Your task to perform on an android device: Play the last video I watched on Youtube Image 0: 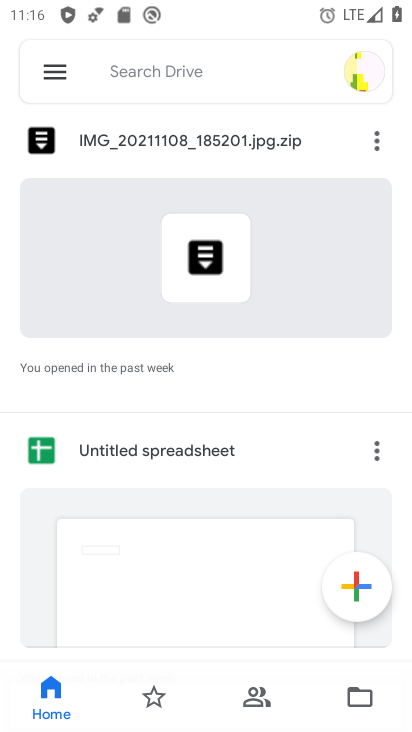
Step 0: press home button
Your task to perform on an android device: Play the last video I watched on Youtube Image 1: 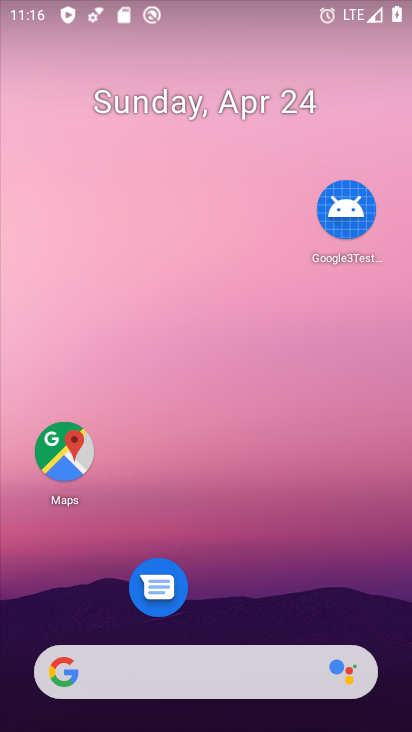
Step 1: drag from (357, 601) to (316, 49)
Your task to perform on an android device: Play the last video I watched on Youtube Image 2: 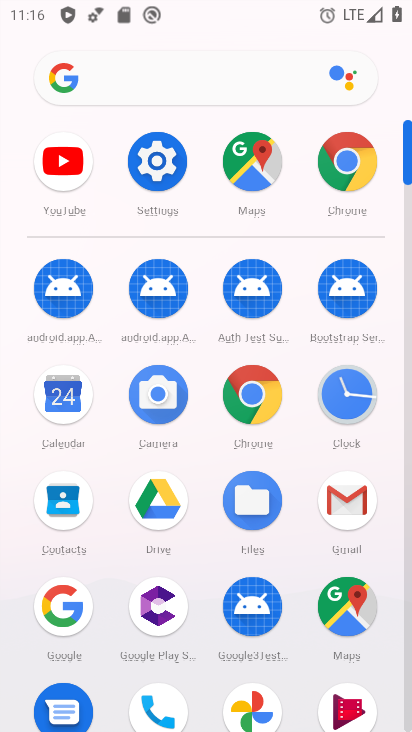
Step 2: click (59, 152)
Your task to perform on an android device: Play the last video I watched on Youtube Image 3: 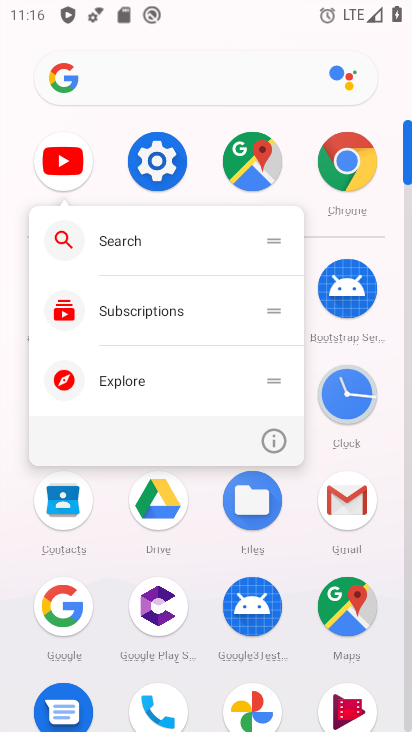
Step 3: click (71, 168)
Your task to perform on an android device: Play the last video I watched on Youtube Image 4: 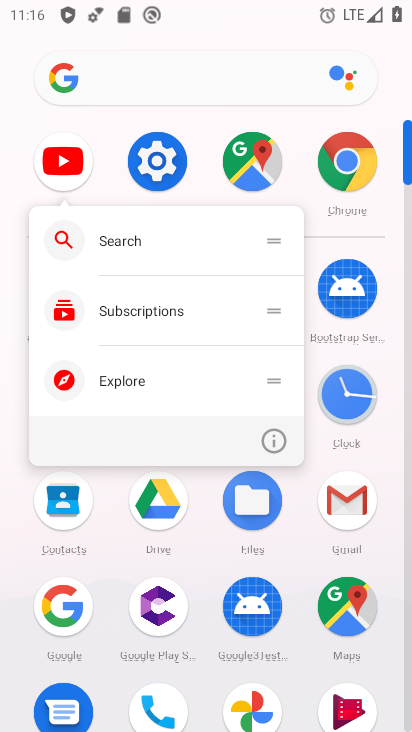
Step 4: click (73, 173)
Your task to perform on an android device: Play the last video I watched on Youtube Image 5: 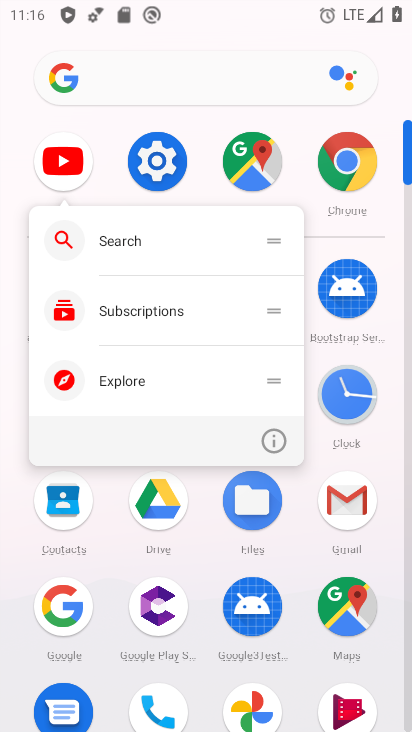
Step 5: drag from (168, 618) to (308, 143)
Your task to perform on an android device: Play the last video I watched on Youtube Image 6: 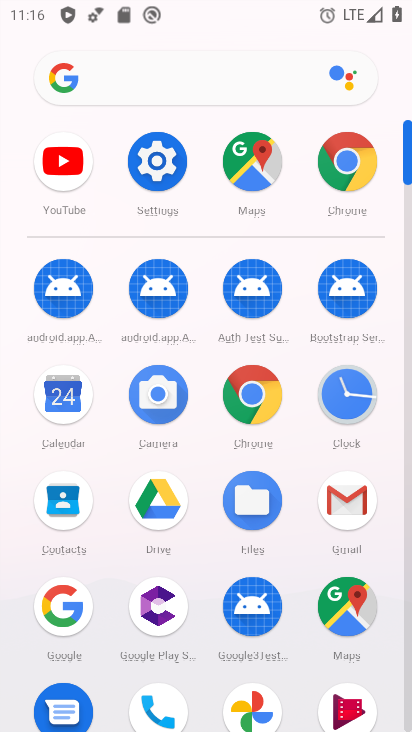
Step 6: drag from (186, 665) to (278, 223)
Your task to perform on an android device: Play the last video I watched on Youtube Image 7: 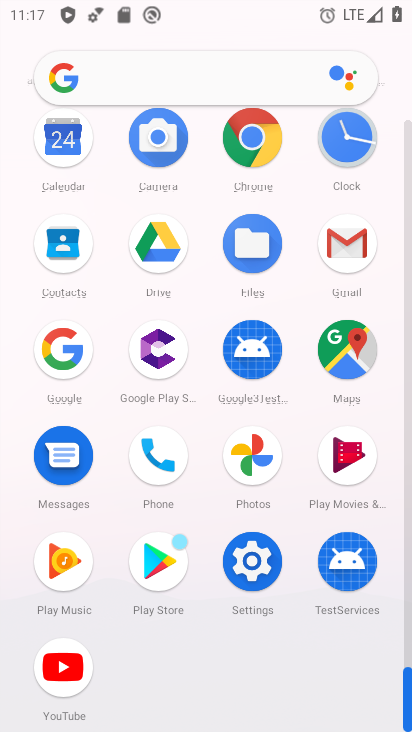
Step 7: click (62, 687)
Your task to perform on an android device: Play the last video I watched on Youtube Image 8: 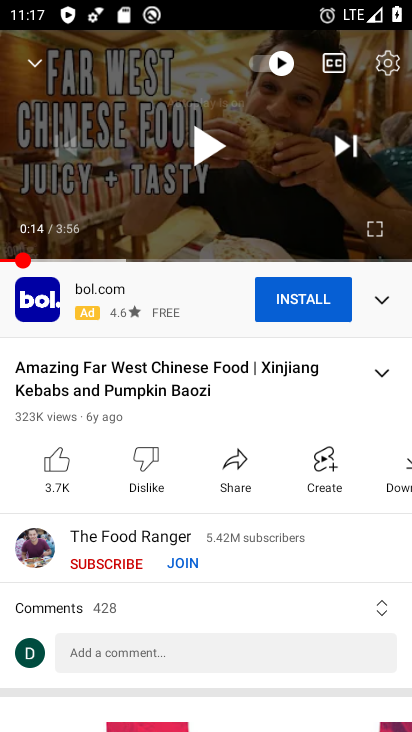
Step 8: click (220, 151)
Your task to perform on an android device: Play the last video I watched on Youtube Image 9: 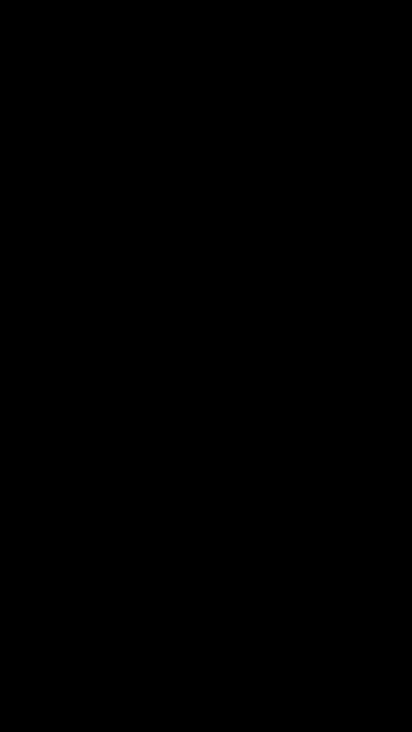
Step 9: task complete